Your task to perform on an android device: Open ESPN.com Image 0: 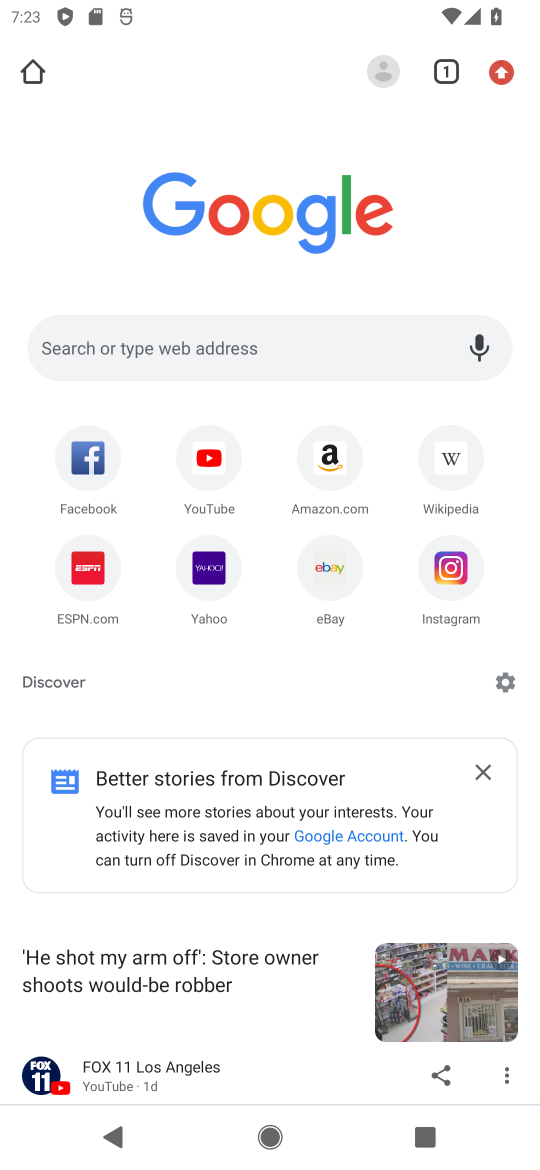
Step 0: press home button
Your task to perform on an android device: Open ESPN.com Image 1: 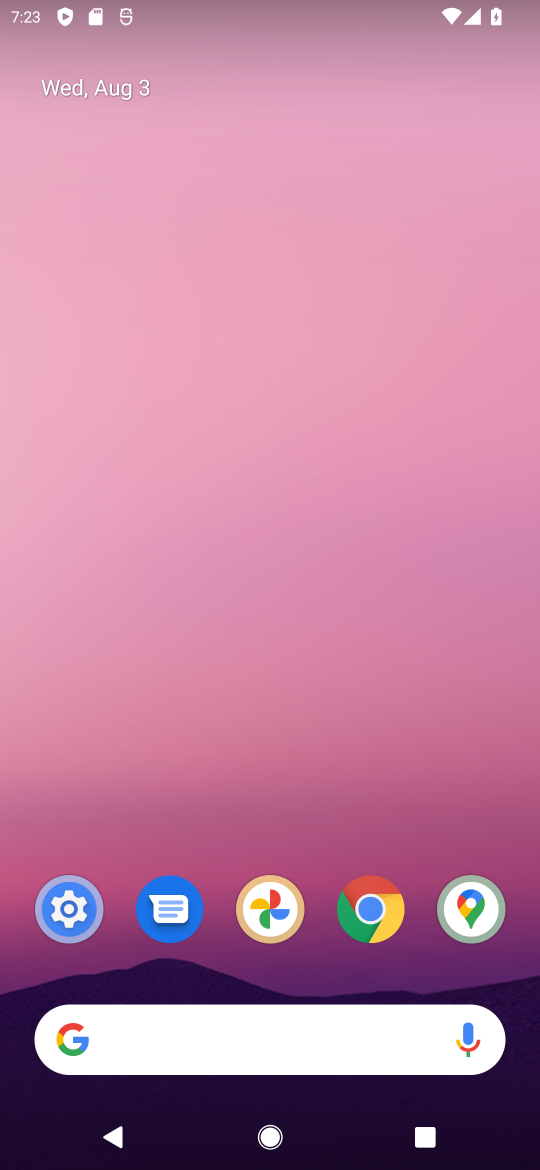
Step 1: drag from (428, 812) to (395, 264)
Your task to perform on an android device: Open ESPN.com Image 2: 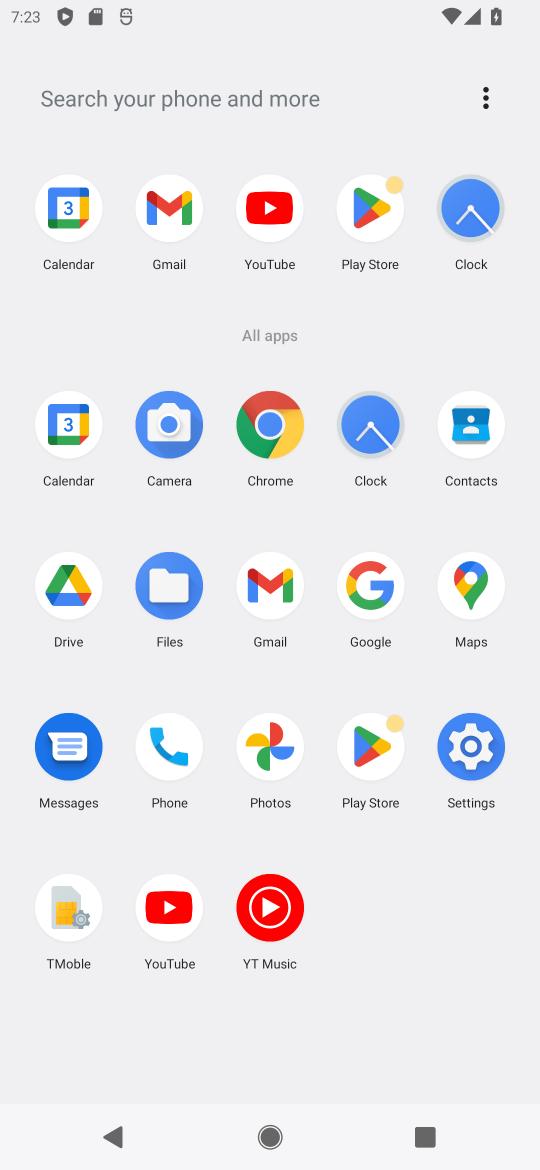
Step 2: click (274, 423)
Your task to perform on an android device: Open ESPN.com Image 3: 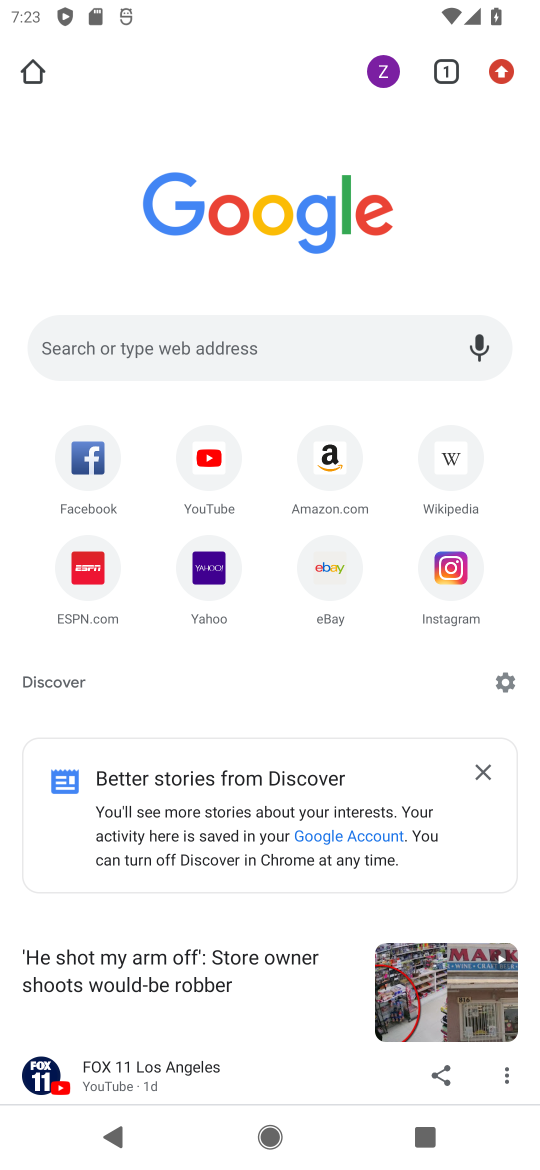
Step 3: click (340, 334)
Your task to perform on an android device: Open ESPN.com Image 4: 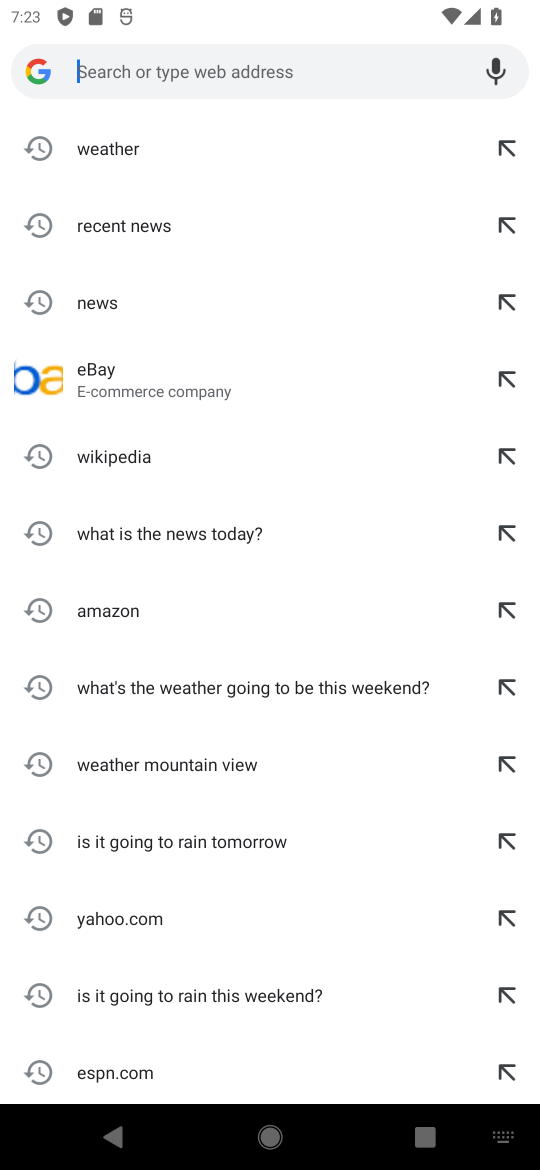
Step 4: type "espn.com"
Your task to perform on an android device: Open ESPN.com Image 5: 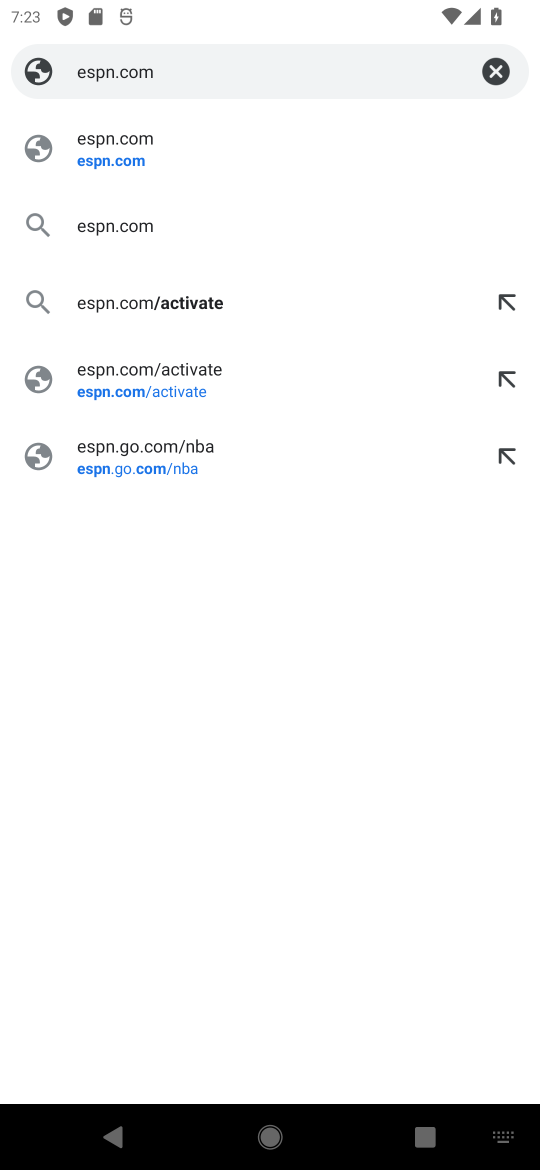
Step 5: click (196, 165)
Your task to perform on an android device: Open ESPN.com Image 6: 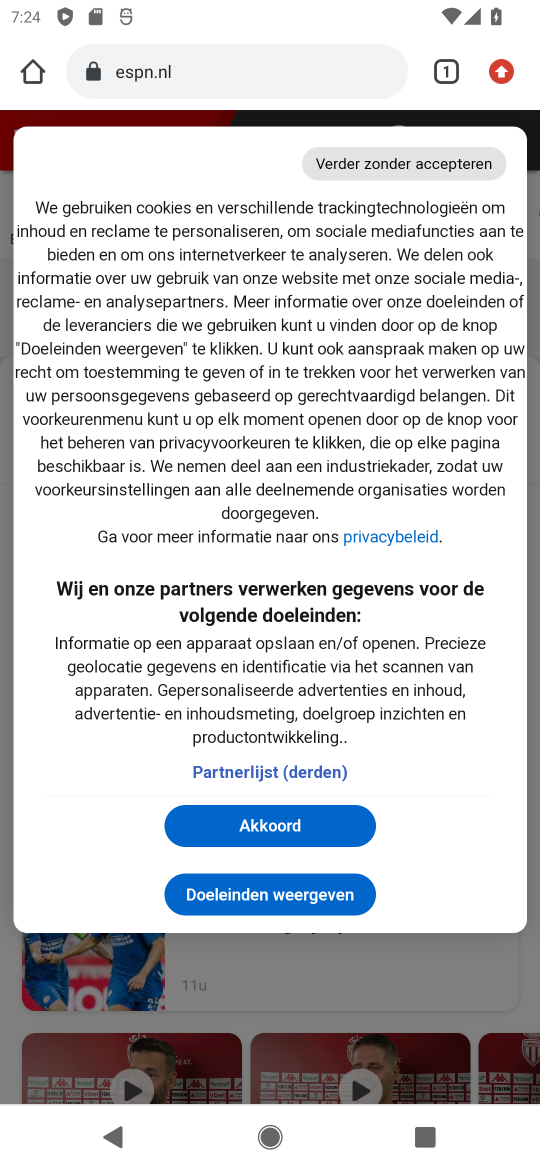
Step 6: task complete